Your task to perform on an android device: Clear the shopping cart on ebay. Add dell alienware to the cart on ebay Image 0: 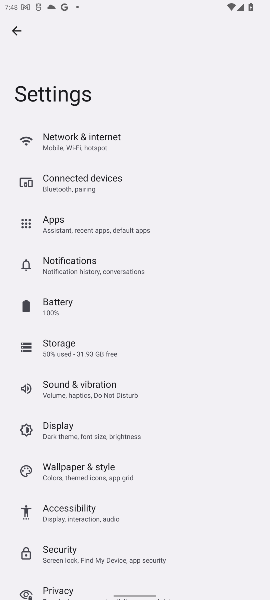
Step 0: press home button
Your task to perform on an android device: Clear the shopping cart on ebay. Add dell alienware to the cart on ebay Image 1: 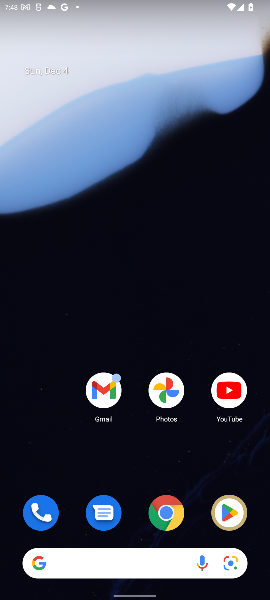
Step 1: click (168, 509)
Your task to perform on an android device: Clear the shopping cart on ebay. Add dell alienware to the cart on ebay Image 2: 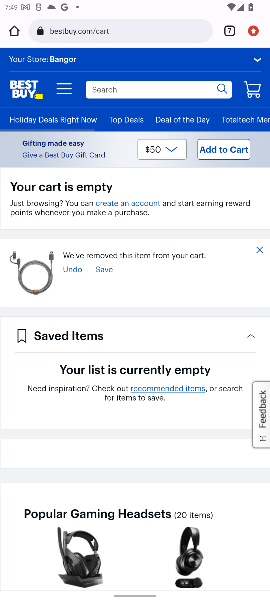
Step 2: click (229, 26)
Your task to perform on an android device: Clear the shopping cart on ebay. Add dell alienware to the cart on ebay Image 3: 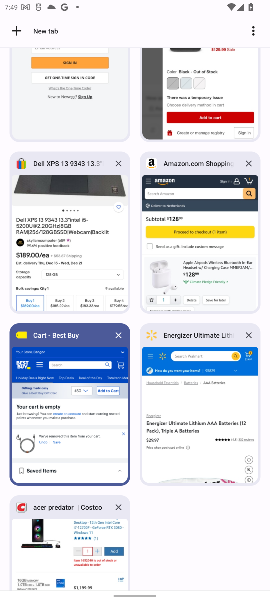
Step 3: click (59, 197)
Your task to perform on an android device: Clear the shopping cart on ebay. Add dell alienware to the cart on ebay Image 4: 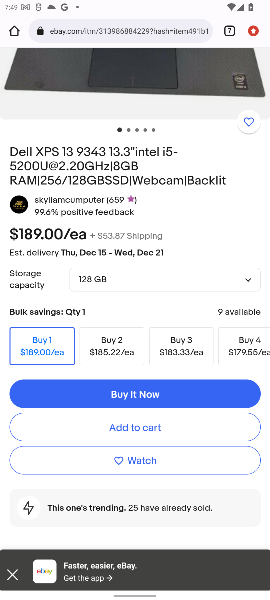
Step 4: drag from (203, 173) to (132, 561)
Your task to perform on an android device: Clear the shopping cart on ebay. Add dell alienware to the cart on ebay Image 5: 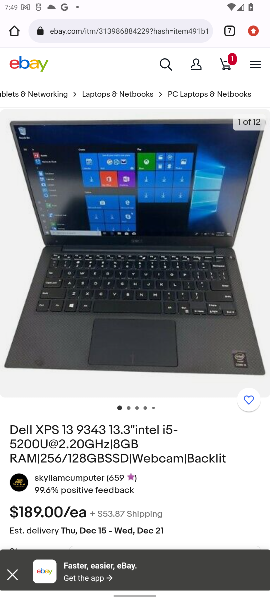
Step 5: click (227, 28)
Your task to perform on an android device: Clear the shopping cart on ebay. Add dell alienware to the cart on ebay Image 6: 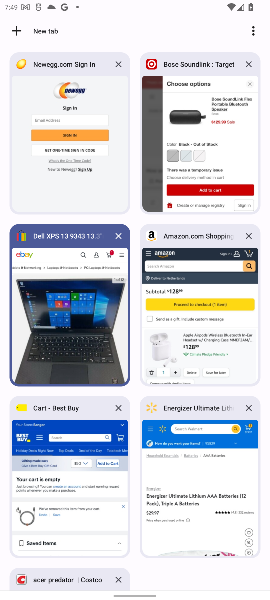
Step 6: click (83, 321)
Your task to perform on an android device: Clear the shopping cart on ebay. Add dell alienware to the cart on ebay Image 7: 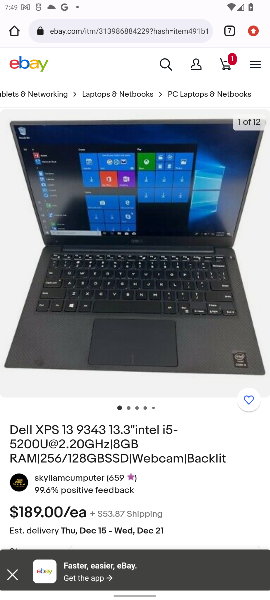
Step 7: click (226, 58)
Your task to perform on an android device: Clear the shopping cart on ebay. Add dell alienware to the cart on ebay Image 8: 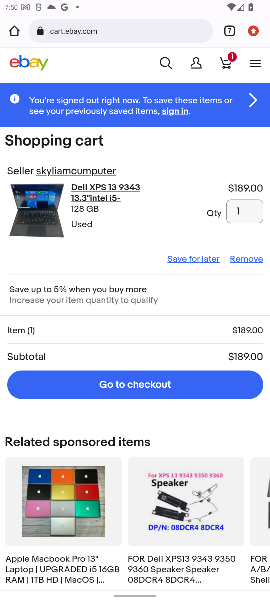
Step 8: click (247, 256)
Your task to perform on an android device: Clear the shopping cart on ebay. Add dell alienware to the cart on ebay Image 9: 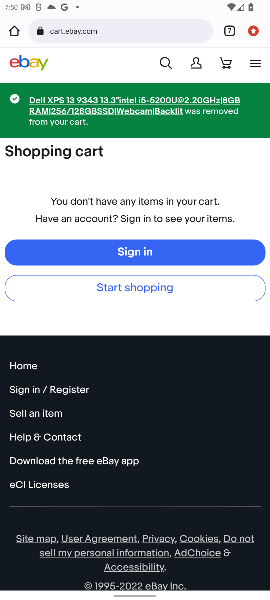
Step 9: click (166, 62)
Your task to perform on an android device: Clear the shopping cart on ebay. Add dell alienware to the cart on ebay Image 10: 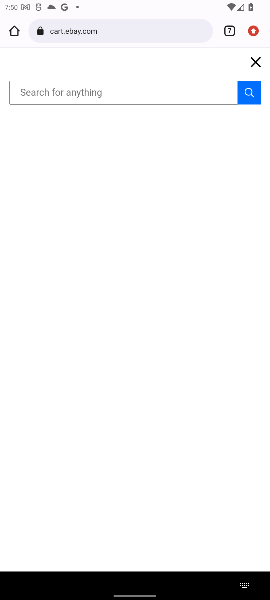
Step 10: type "dell alienware"
Your task to perform on an android device: Clear the shopping cart on ebay. Add dell alienware to the cart on ebay Image 11: 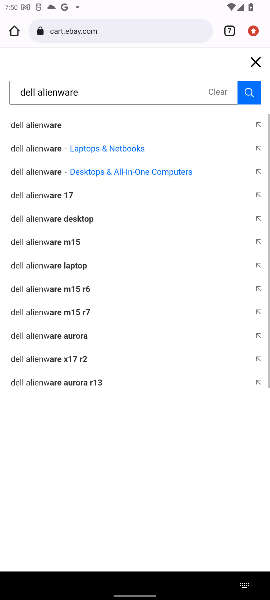
Step 11: click (42, 147)
Your task to perform on an android device: Clear the shopping cart on ebay. Add dell alienware to the cart on ebay Image 12: 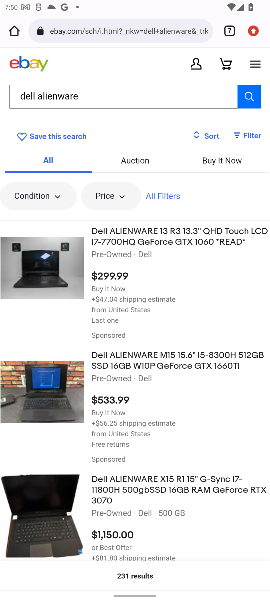
Step 12: click (167, 226)
Your task to perform on an android device: Clear the shopping cart on ebay. Add dell alienware to the cart on ebay Image 13: 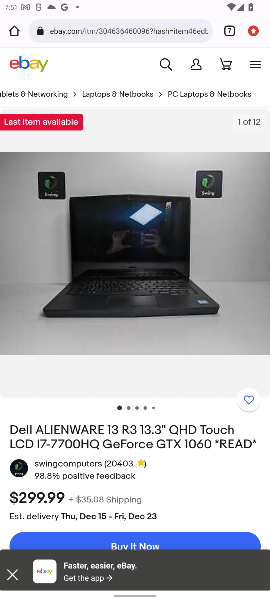
Step 13: drag from (188, 466) to (221, 268)
Your task to perform on an android device: Clear the shopping cart on ebay. Add dell alienware to the cart on ebay Image 14: 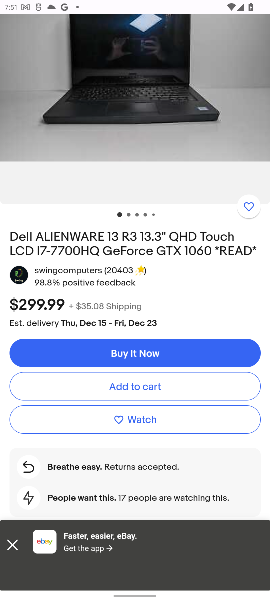
Step 14: click (149, 384)
Your task to perform on an android device: Clear the shopping cart on ebay. Add dell alienware to the cart on ebay Image 15: 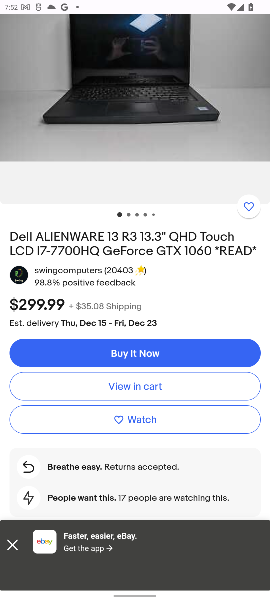
Step 15: task complete